Your task to perform on an android device: Open the web browser Image 0: 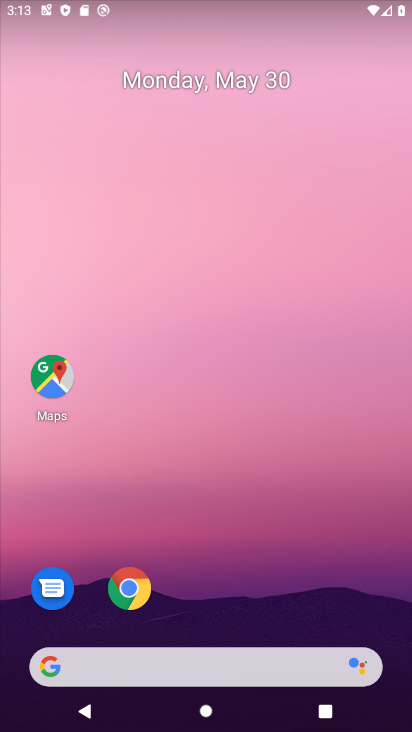
Step 0: drag from (298, 565) to (266, 87)
Your task to perform on an android device: Open the web browser Image 1: 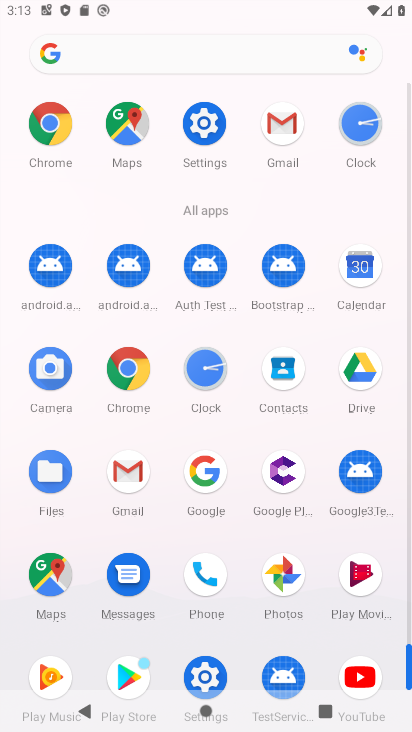
Step 1: drag from (21, 586) to (29, 291)
Your task to perform on an android device: Open the web browser Image 2: 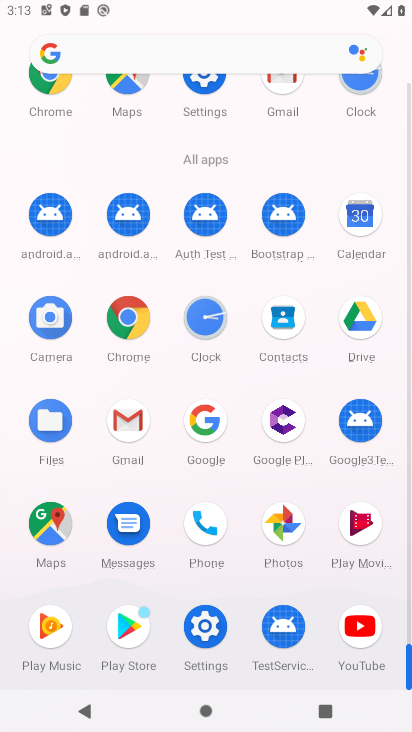
Step 2: click (127, 314)
Your task to perform on an android device: Open the web browser Image 3: 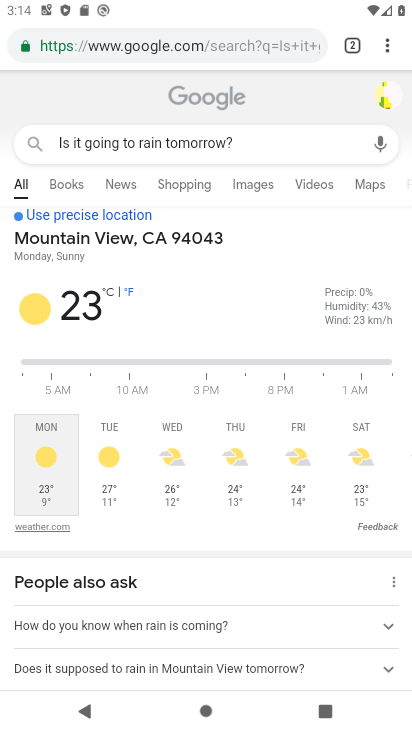
Step 3: task complete